Your task to perform on an android device: visit the assistant section in the google photos Image 0: 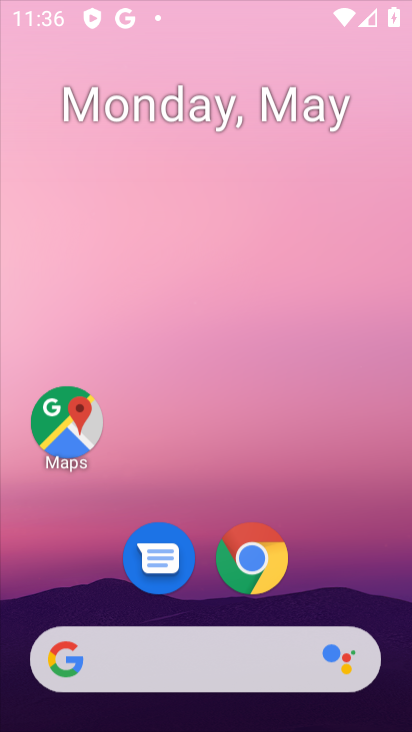
Step 0: press home button
Your task to perform on an android device: visit the assistant section in the google photos Image 1: 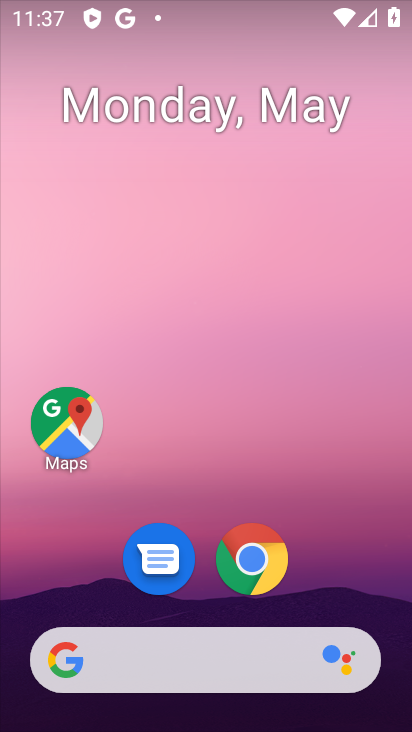
Step 1: click (345, 545)
Your task to perform on an android device: visit the assistant section in the google photos Image 2: 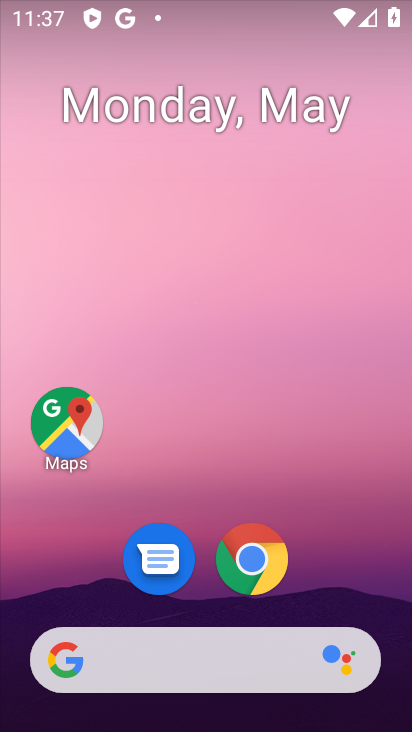
Step 2: press home button
Your task to perform on an android device: visit the assistant section in the google photos Image 3: 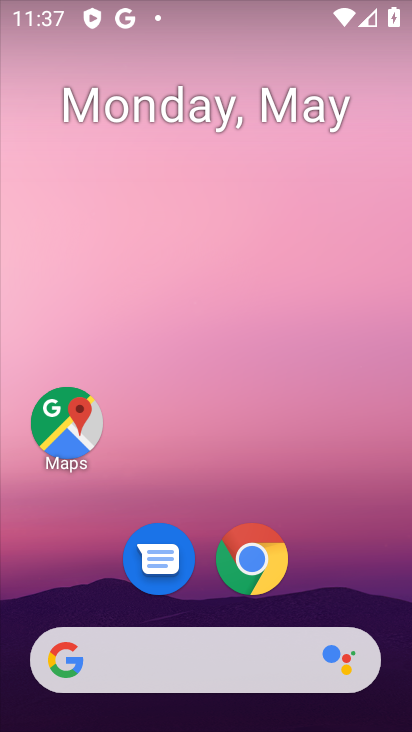
Step 3: press home button
Your task to perform on an android device: visit the assistant section in the google photos Image 4: 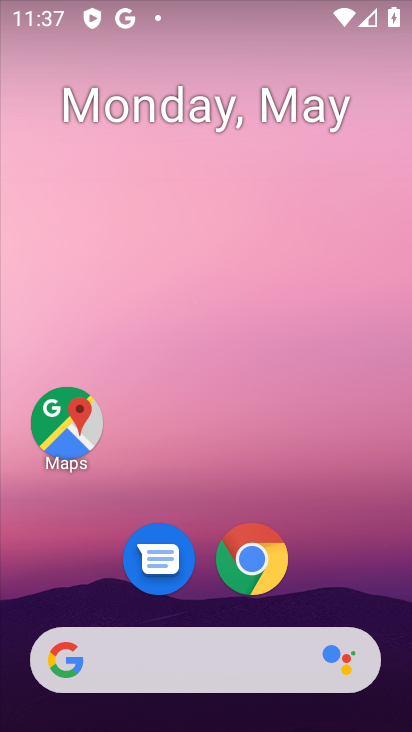
Step 4: drag from (352, 563) to (366, 2)
Your task to perform on an android device: visit the assistant section in the google photos Image 5: 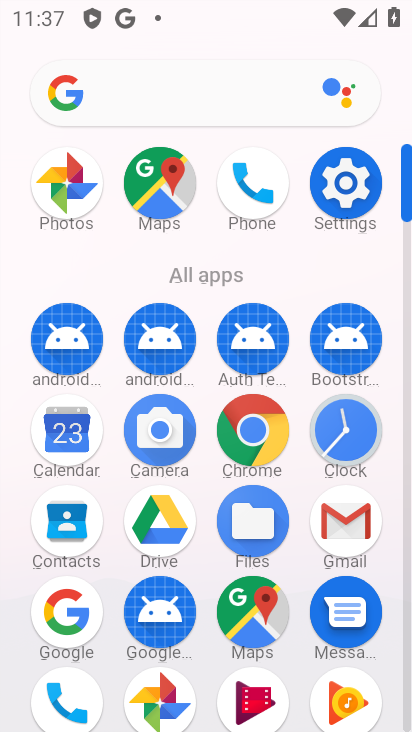
Step 5: click (167, 698)
Your task to perform on an android device: visit the assistant section in the google photos Image 6: 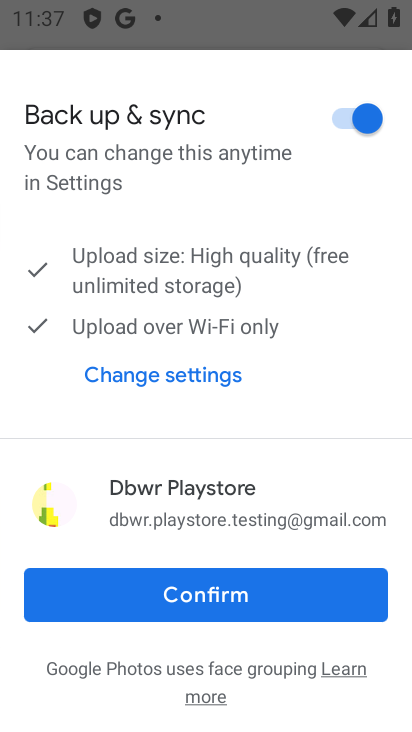
Step 6: click (236, 606)
Your task to perform on an android device: visit the assistant section in the google photos Image 7: 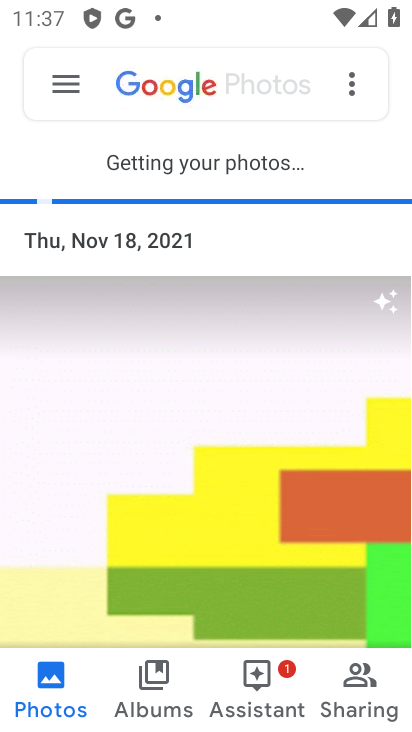
Step 7: click (239, 715)
Your task to perform on an android device: visit the assistant section in the google photos Image 8: 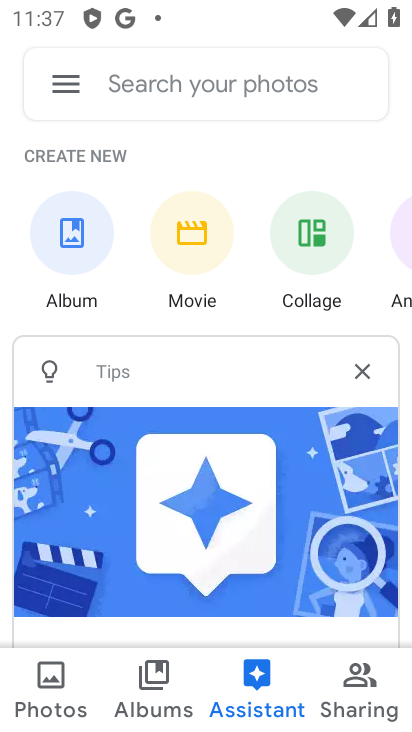
Step 8: task complete